Your task to perform on an android device: turn off airplane mode Image 0: 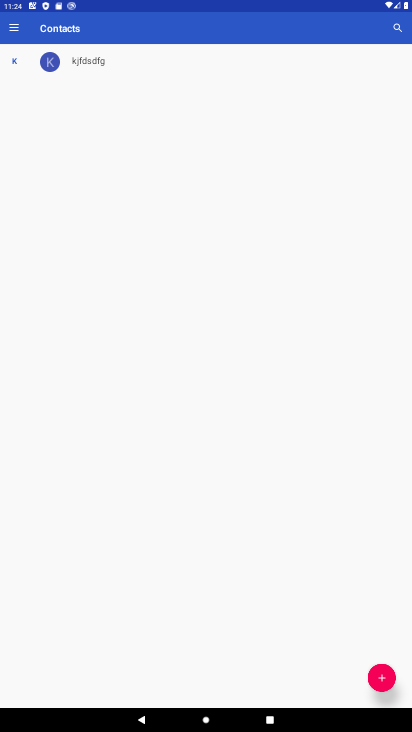
Step 0: press home button
Your task to perform on an android device: turn off airplane mode Image 1: 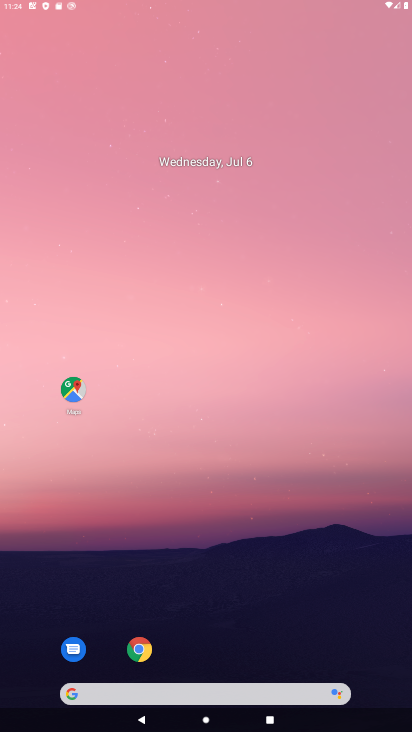
Step 1: task complete